Your task to perform on an android device: Open internet settings Image 0: 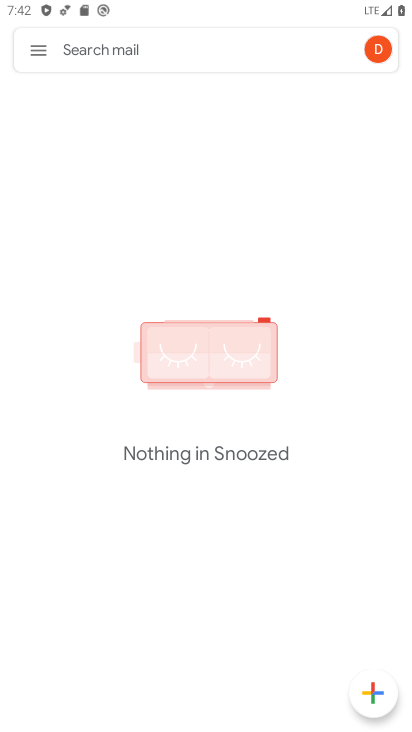
Step 0: press home button
Your task to perform on an android device: Open internet settings Image 1: 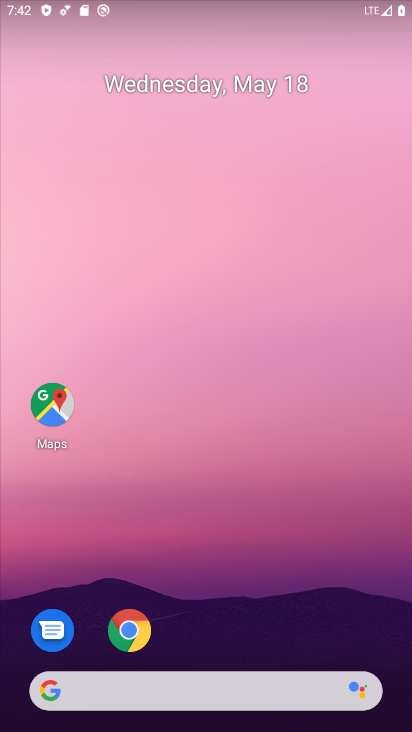
Step 1: drag from (306, 602) to (291, 151)
Your task to perform on an android device: Open internet settings Image 2: 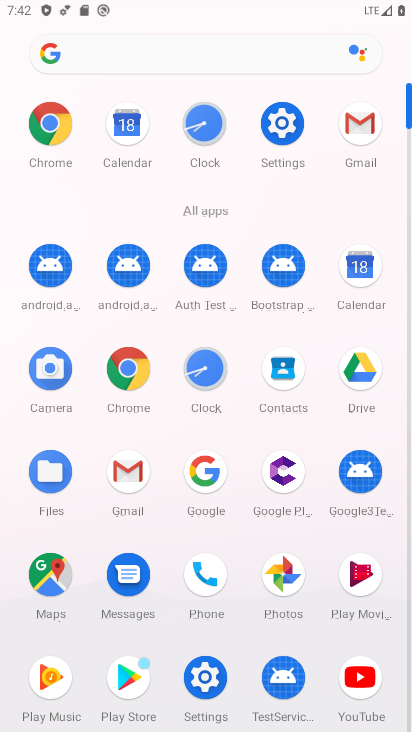
Step 2: click (277, 137)
Your task to perform on an android device: Open internet settings Image 3: 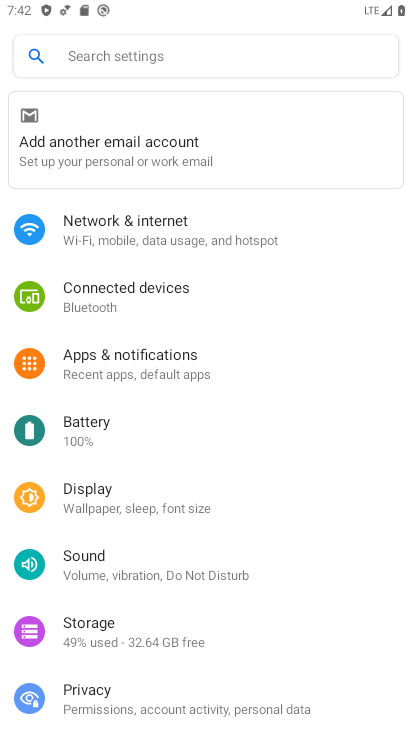
Step 3: click (175, 242)
Your task to perform on an android device: Open internet settings Image 4: 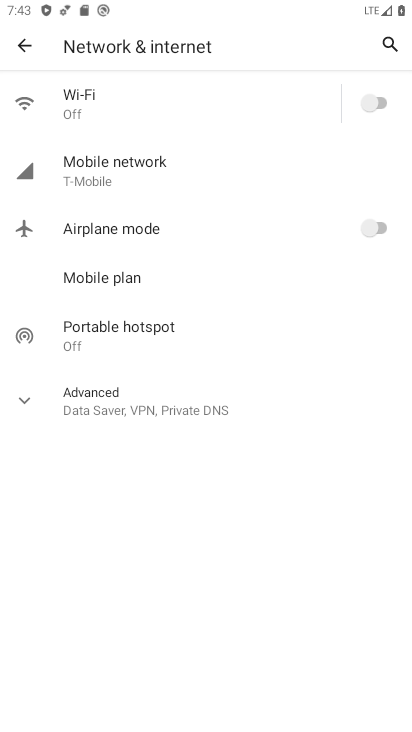
Step 4: task complete